Your task to perform on an android device: Toggle the flashlight Image 0: 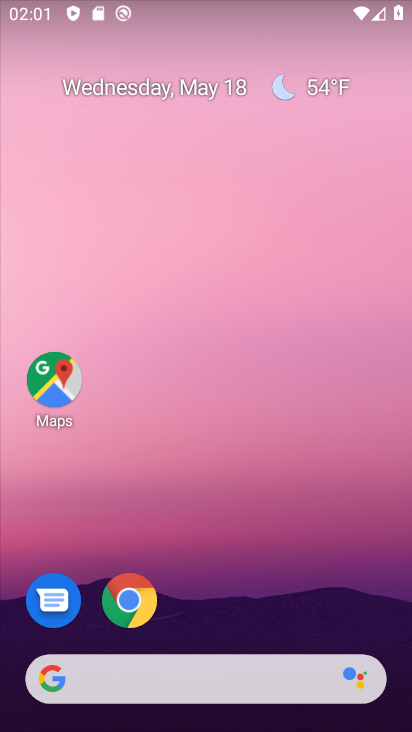
Step 0: drag from (315, 3) to (326, 477)
Your task to perform on an android device: Toggle the flashlight Image 1: 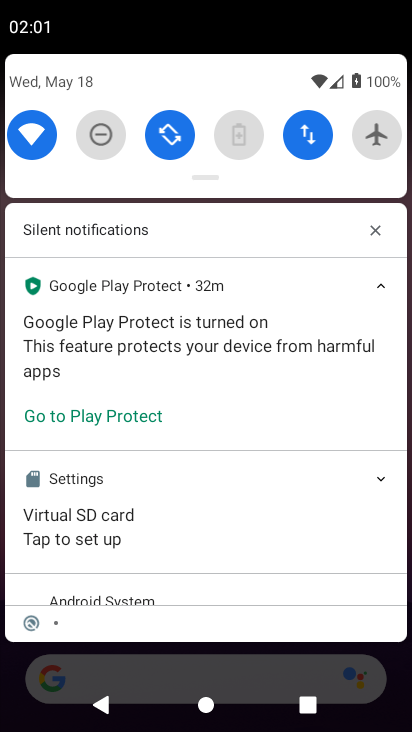
Step 1: drag from (250, 162) to (281, 517)
Your task to perform on an android device: Toggle the flashlight Image 2: 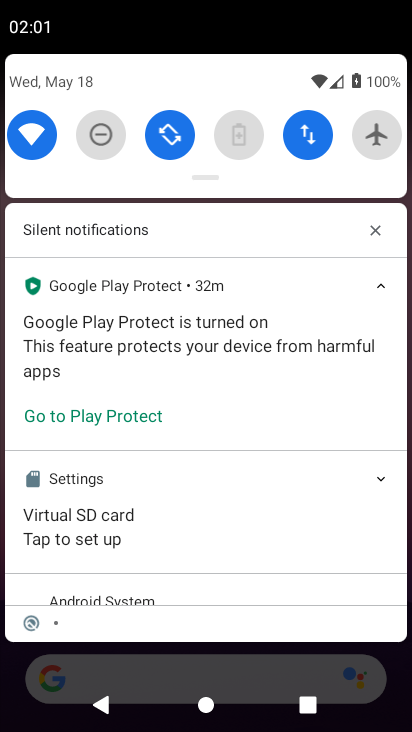
Step 2: drag from (243, 129) to (313, 527)
Your task to perform on an android device: Toggle the flashlight Image 3: 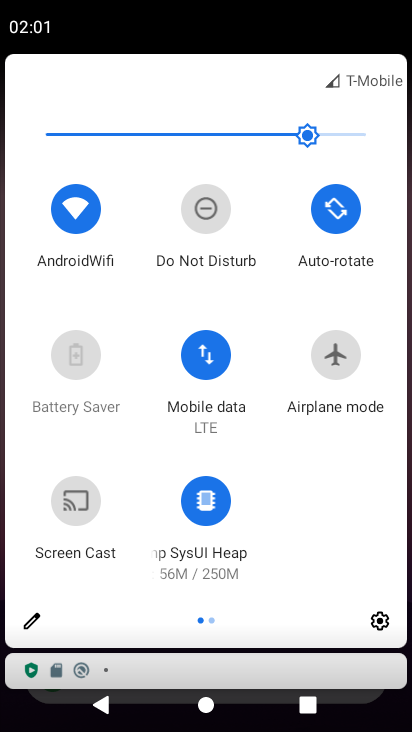
Step 3: drag from (356, 422) to (20, 464)
Your task to perform on an android device: Toggle the flashlight Image 4: 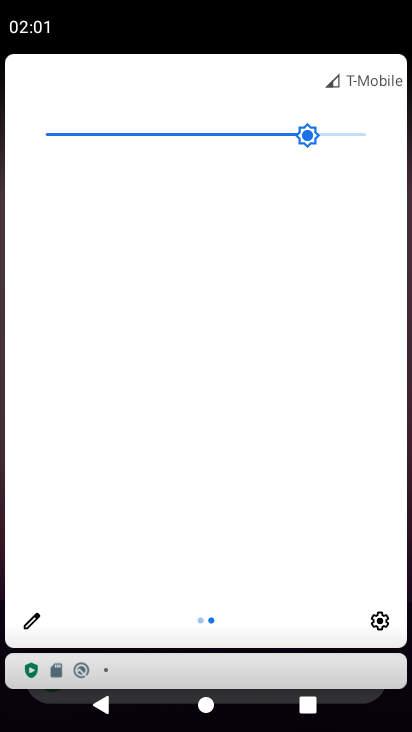
Step 4: click (43, 612)
Your task to perform on an android device: Toggle the flashlight Image 5: 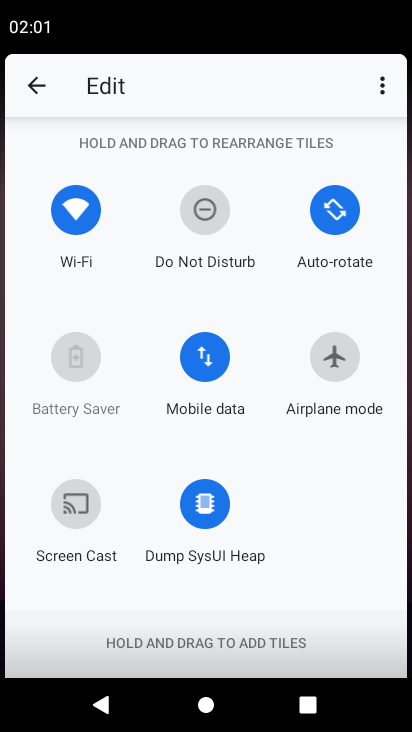
Step 5: task complete